Your task to perform on an android device: Open Maps and search for coffee Image 0: 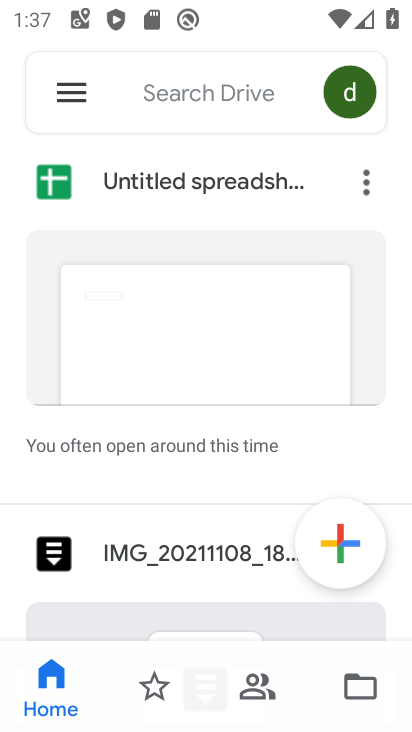
Step 0: press home button
Your task to perform on an android device: Open Maps and search for coffee Image 1: 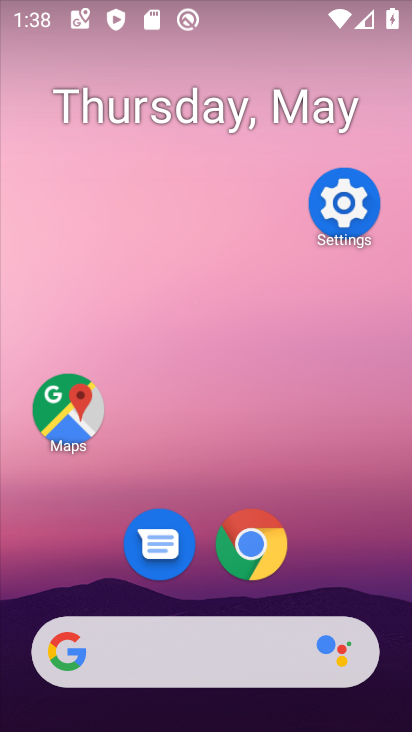
Step 1: click (75, 438)
Your task to perform on an android device: Open Maps and search for coffee Image 2: 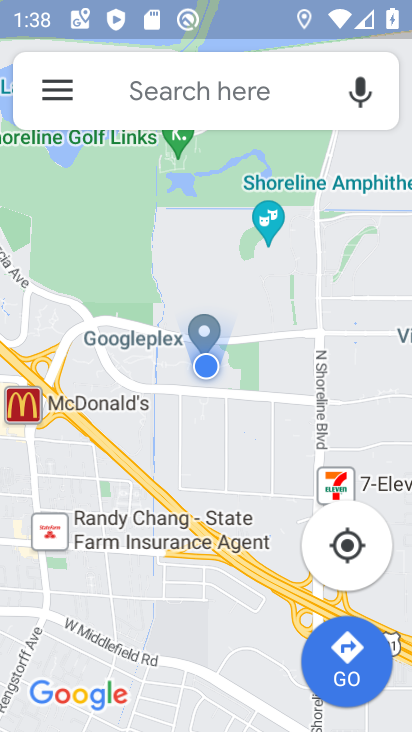
Step 2: click (197, 94)
Your task to perform on an android device: Open Maps and search for coffee Image 3: 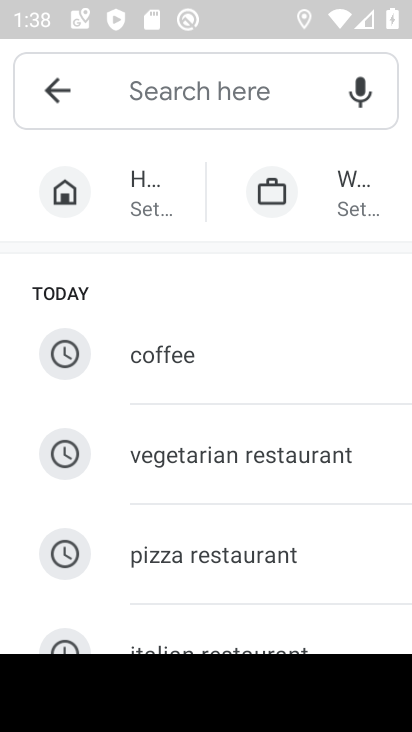
Step 3: click (195, 362)
Your task to perform on an android device: Open Maps and search for coffee Image 4: 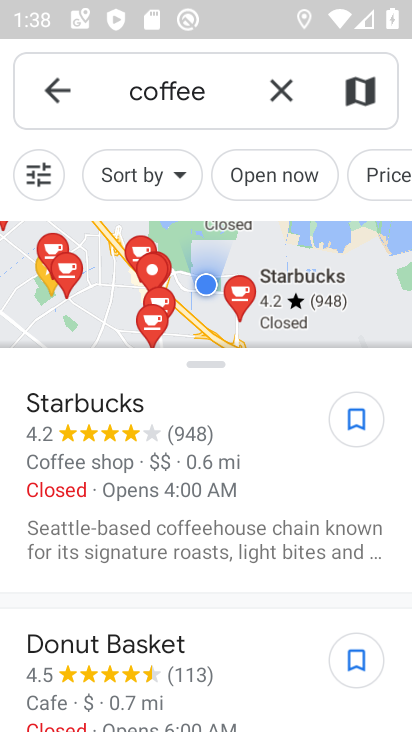
Step 4: task complete